Your task to perform on an android device: turn off location history Image 0: 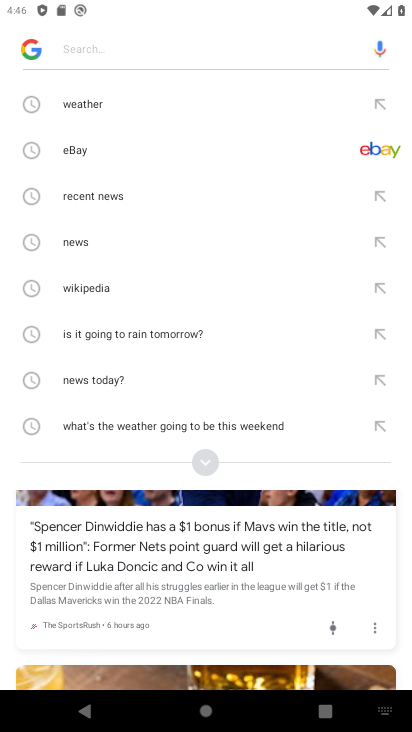
Step 0: press home button
Your task to perform on an android device: turn off location history Image 1: 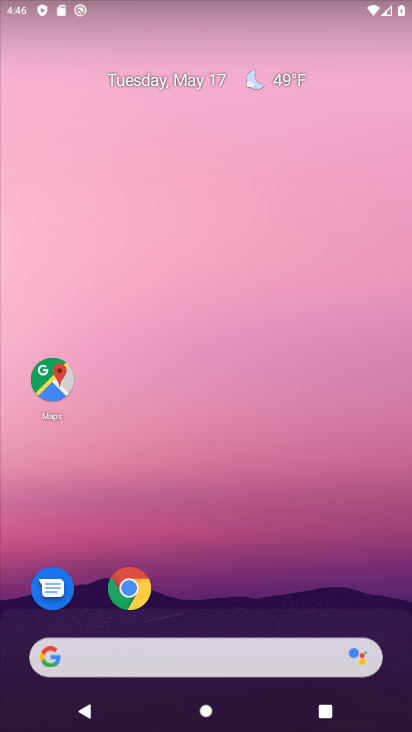
Step 1: click (55, 379)
Your task to perform on an android device: turn off location history Image 2: 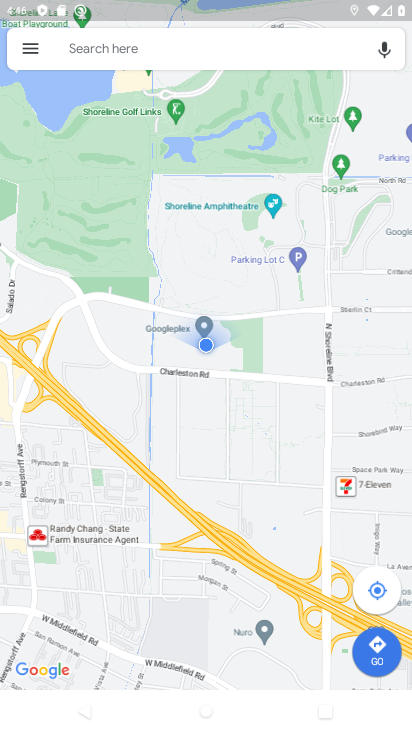
Step 2: click (34, 54)
Your task to perform on an android device: turn off location history Image 3: 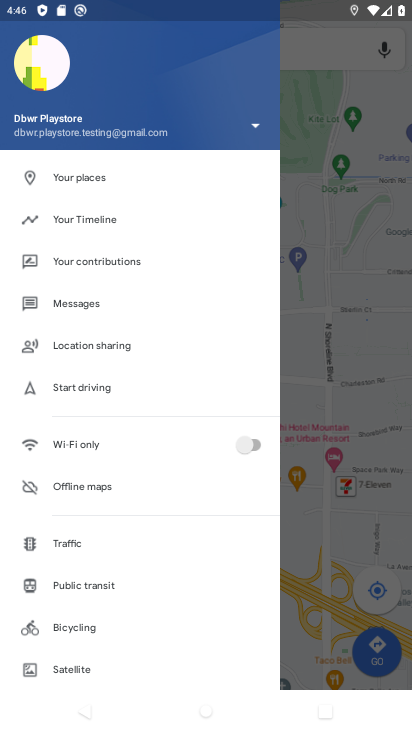
Step 3: click (119, 222)
Your task to perform on an android device: turn off location history Image 4: 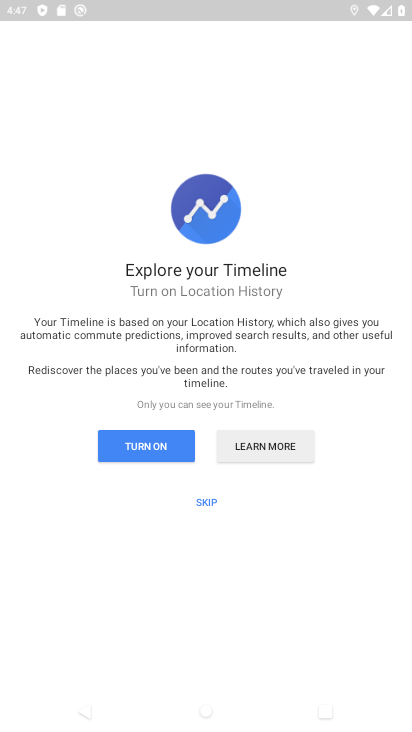
Step 4: click (214, 502)
Your task to perform on an android device: turn off location history Image 5: 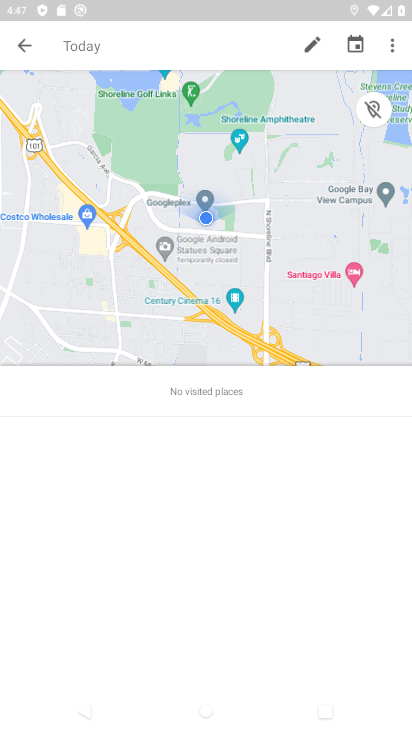
Step 5: click (398, 53)
Your task to perform on an android device: turn off location history Image 6: 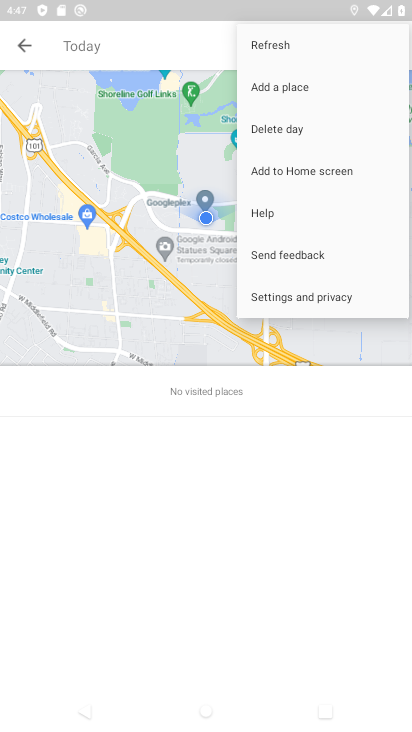
Step 6: click (339, 302)
Your task to perform on an android device: turn off location history Image 7: 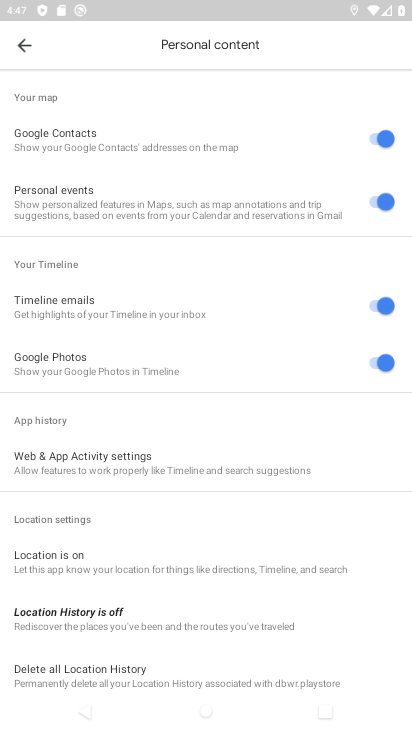
Step 7: click (236, 630)
Your task to perform on an android device: turn off location history Image 8: 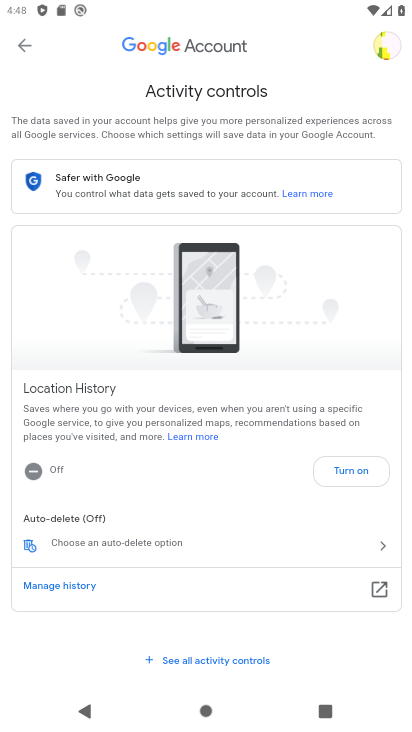
Step 8: click (356, 473)
Your task to perform on an android device: turn off location history Image 9: 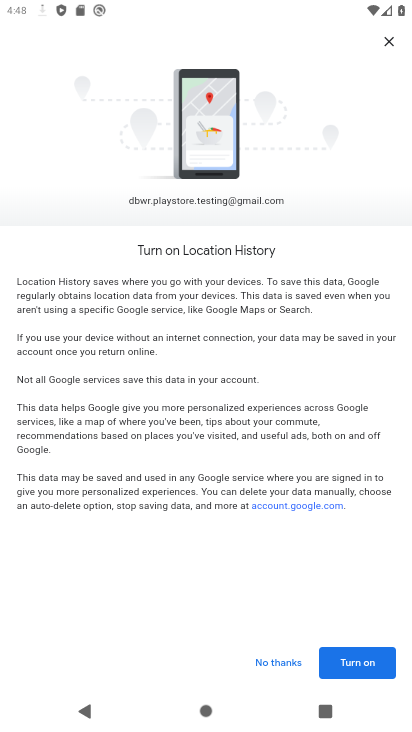
Step 9: click (373, 673)
Your task to perform on an android device: turn off location history Image 10: 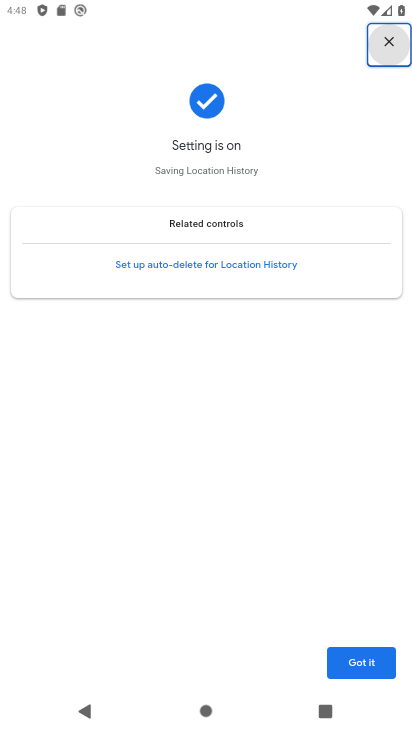
Step 10: click (358, 664)
Your task to perform on an android device: turn off location history Image 11: 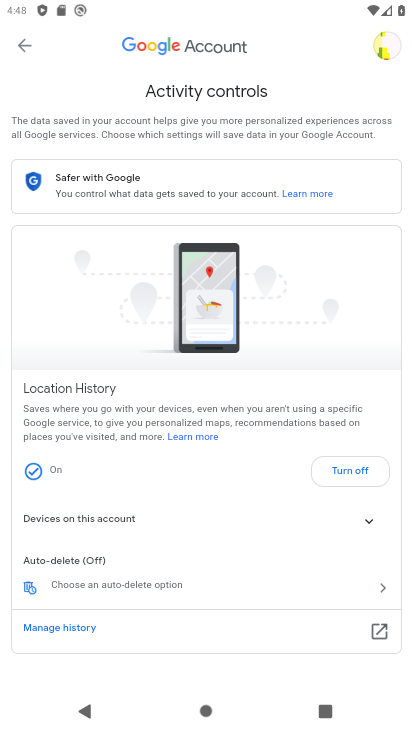
Step 11: task complete